Your task to perform on an android device: allow cookies in the chrome app Image 0: 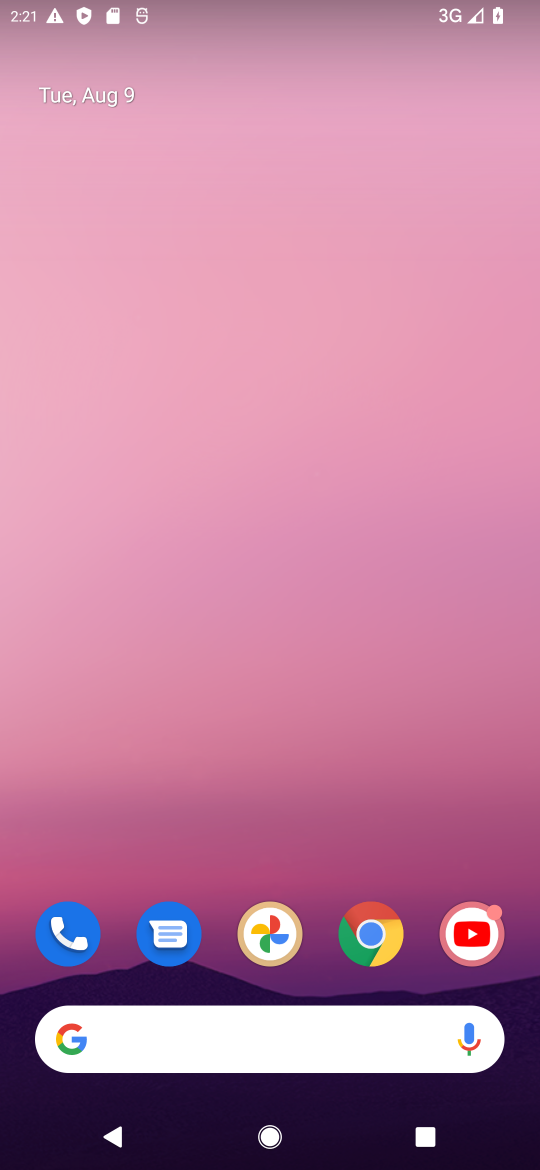
Step 0: click (389, 916)
Your task to perform on an android device: allow cookies in the chrome app Image 1: 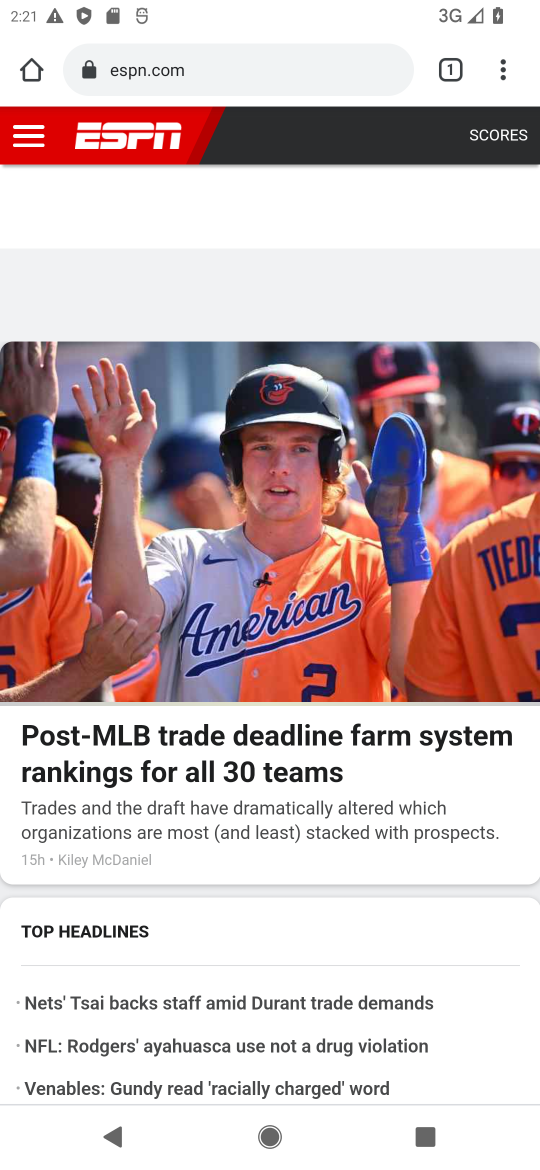
Step 1: task complete